Your task to perform on an android device: check battery use Image 0: 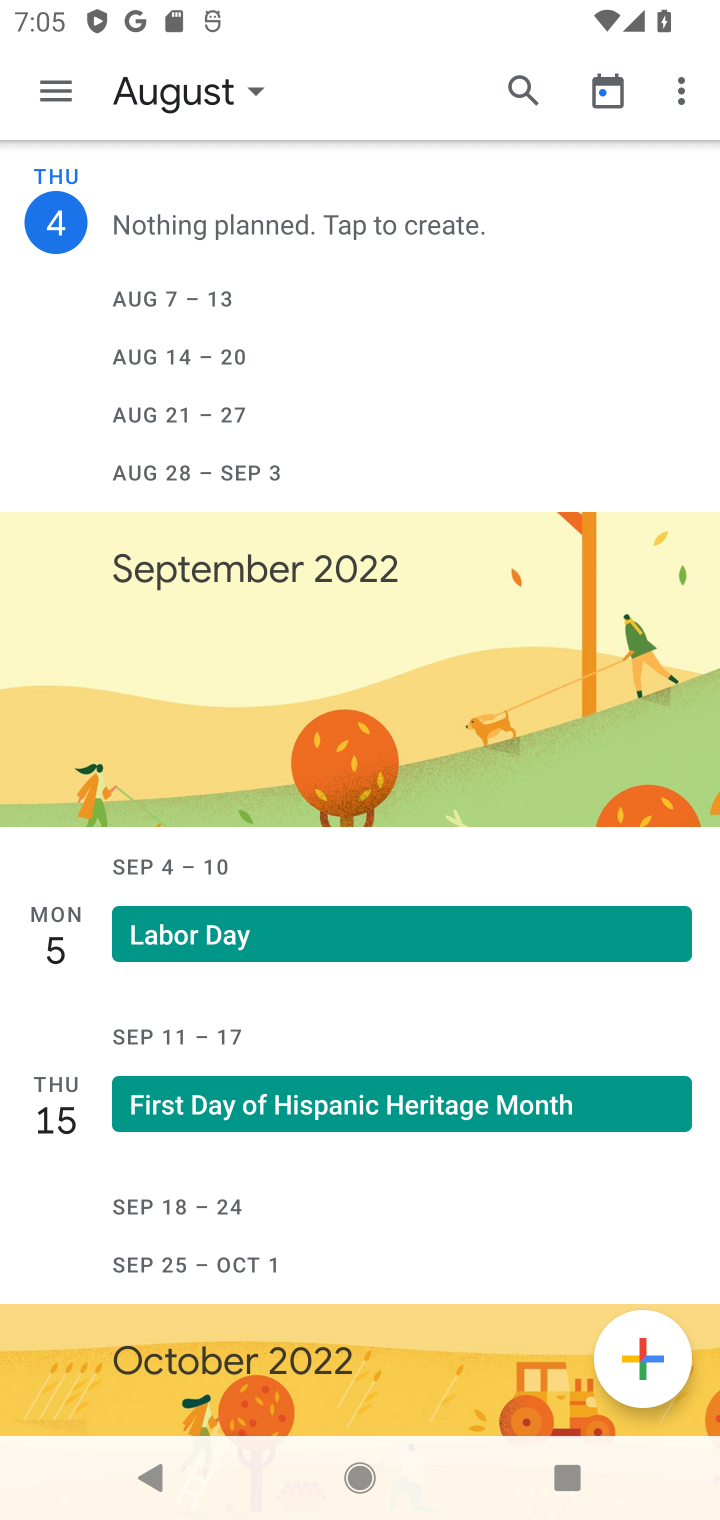
Step 0: press home button
Your task to perform on an android device: check battery use Image 1: 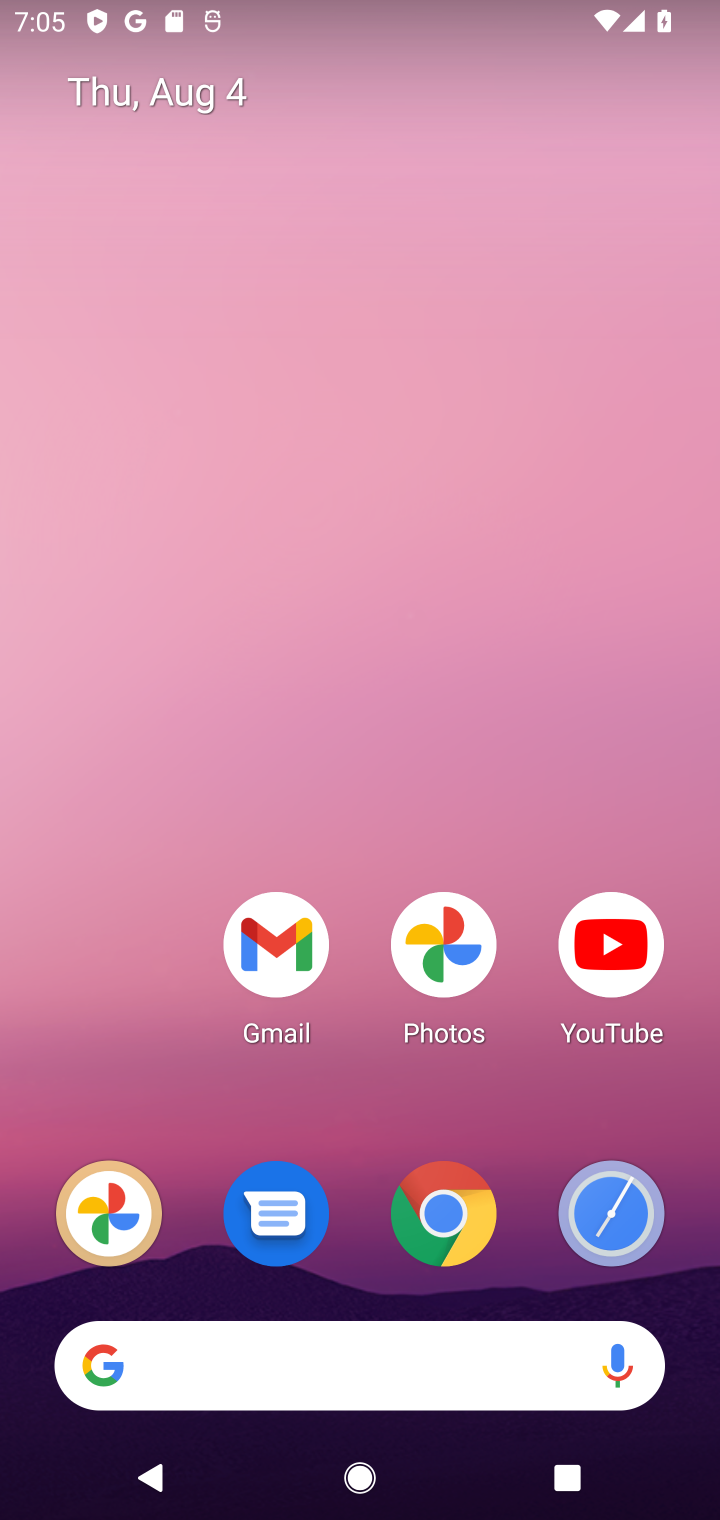
Step 1: click (256, 2)
Your task to perform on an android device: check battery use Image 2: 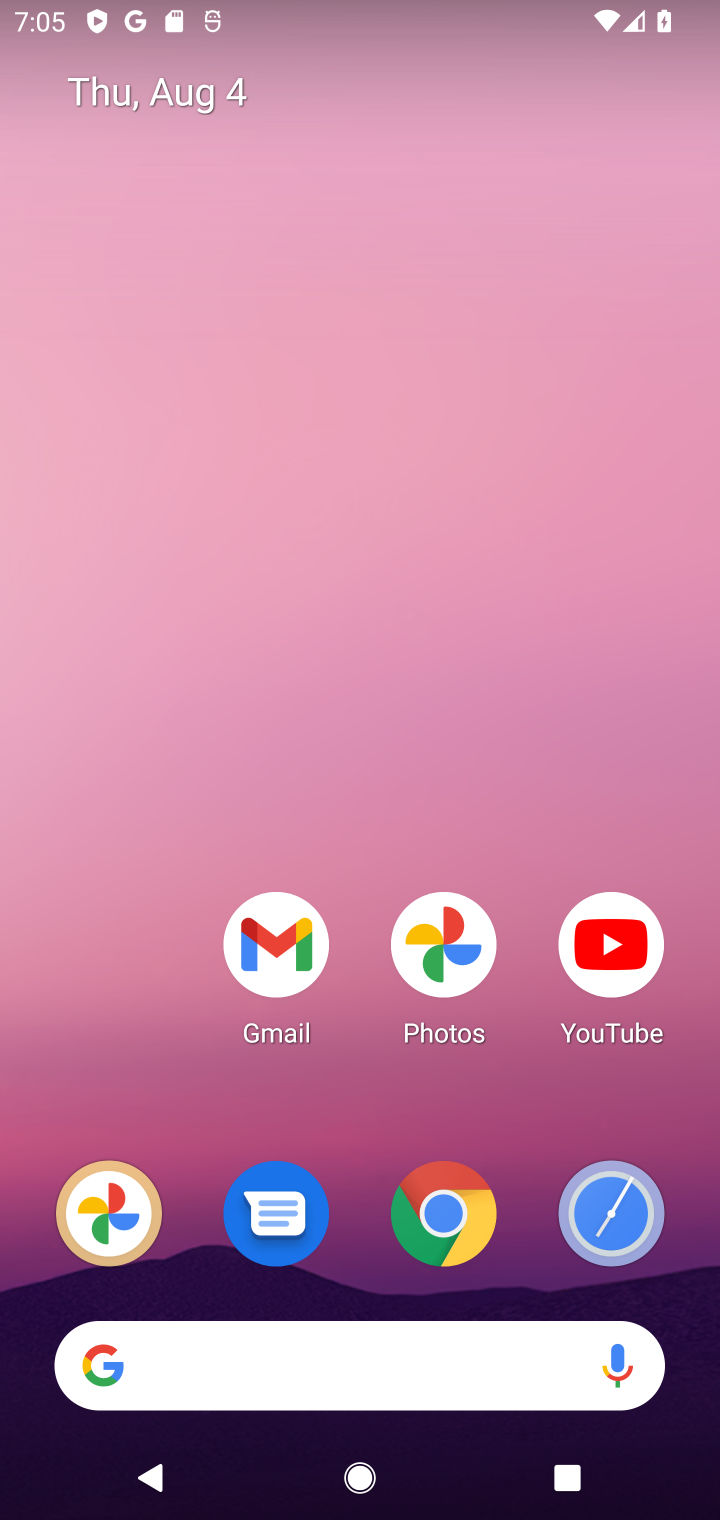
Step 2: drag from (225, 1097) to (183, 439)
Your task to perform on an android device: check battery use Image 3: 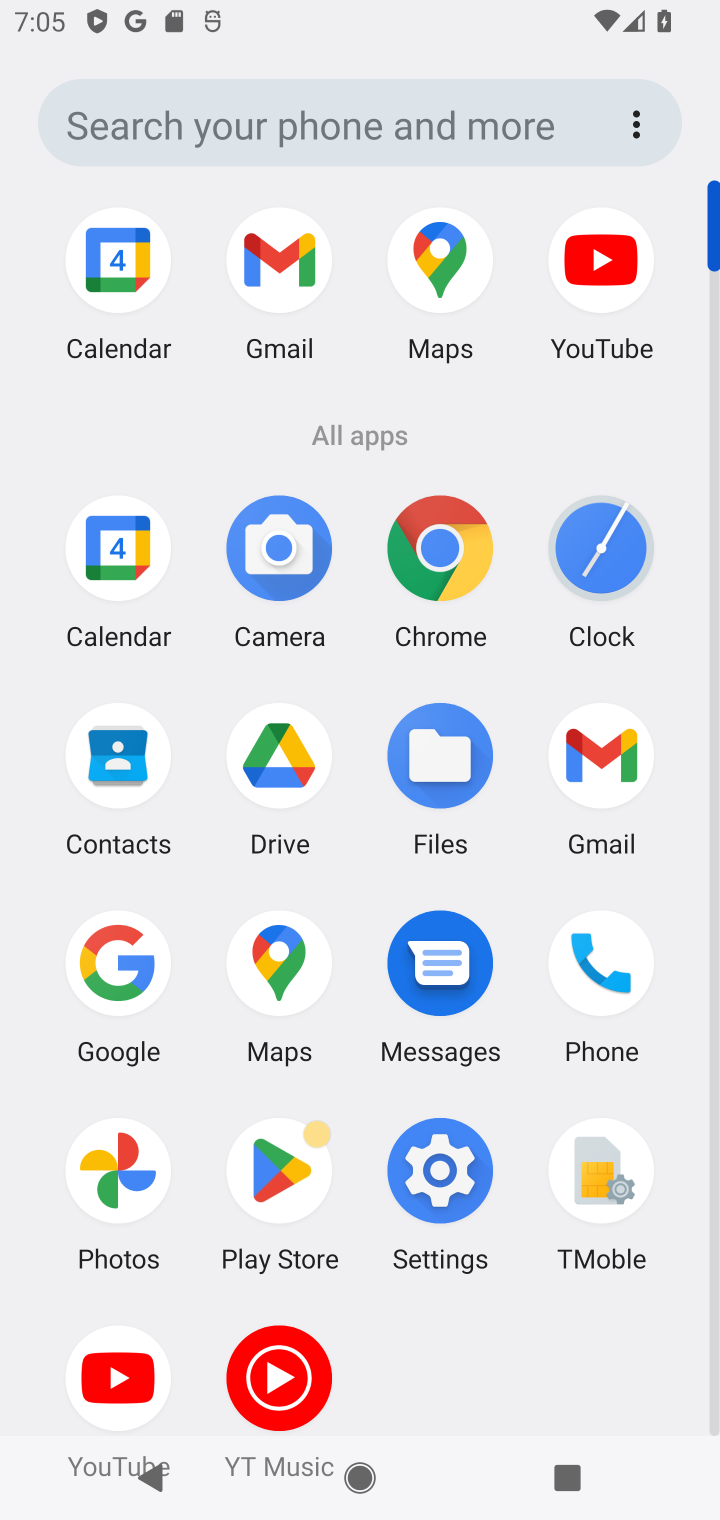
Step 3: click (464, 1151)
Your task to perform on an android device: check battery use Image 4: 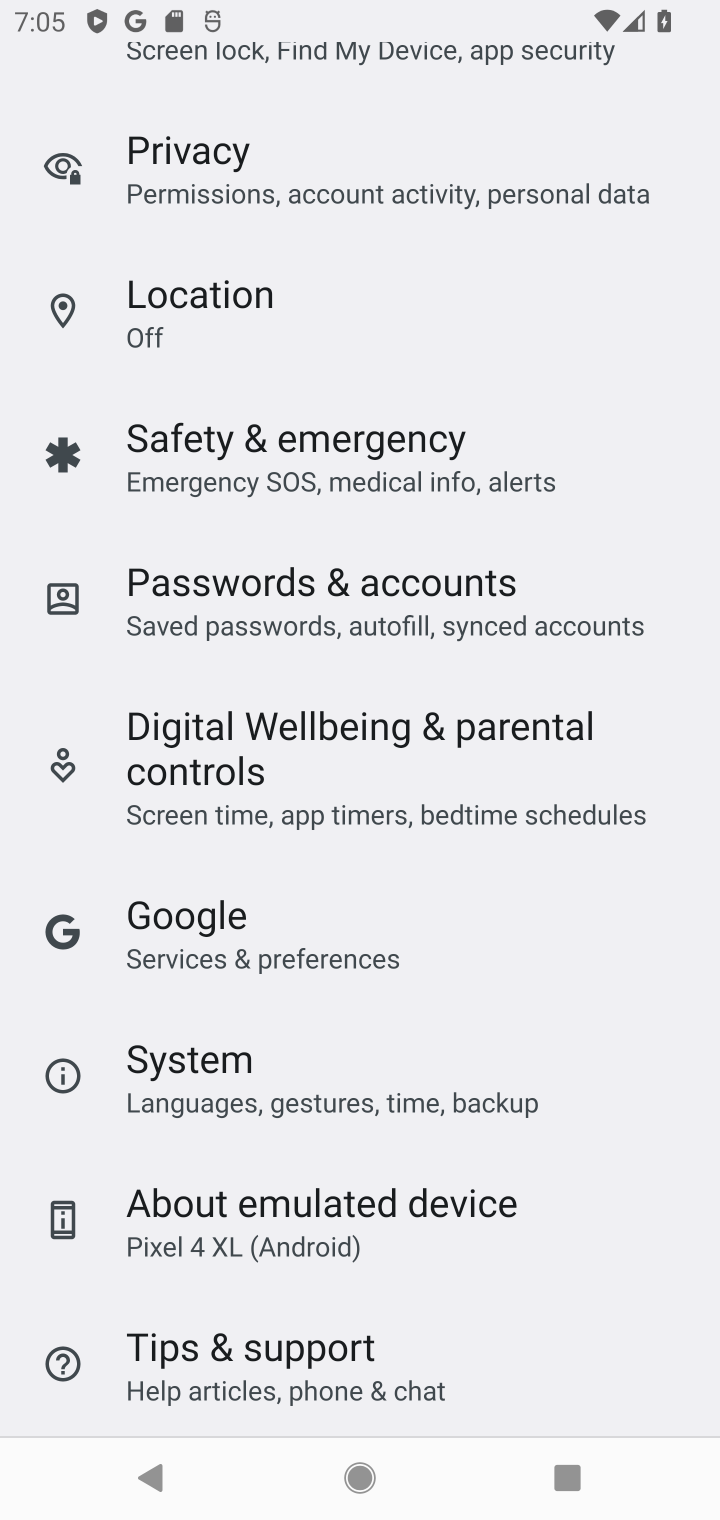
Step 4: drag from (450, 457) to (507, 1390)
Your task to perform on an android device: check battery use Image 5: 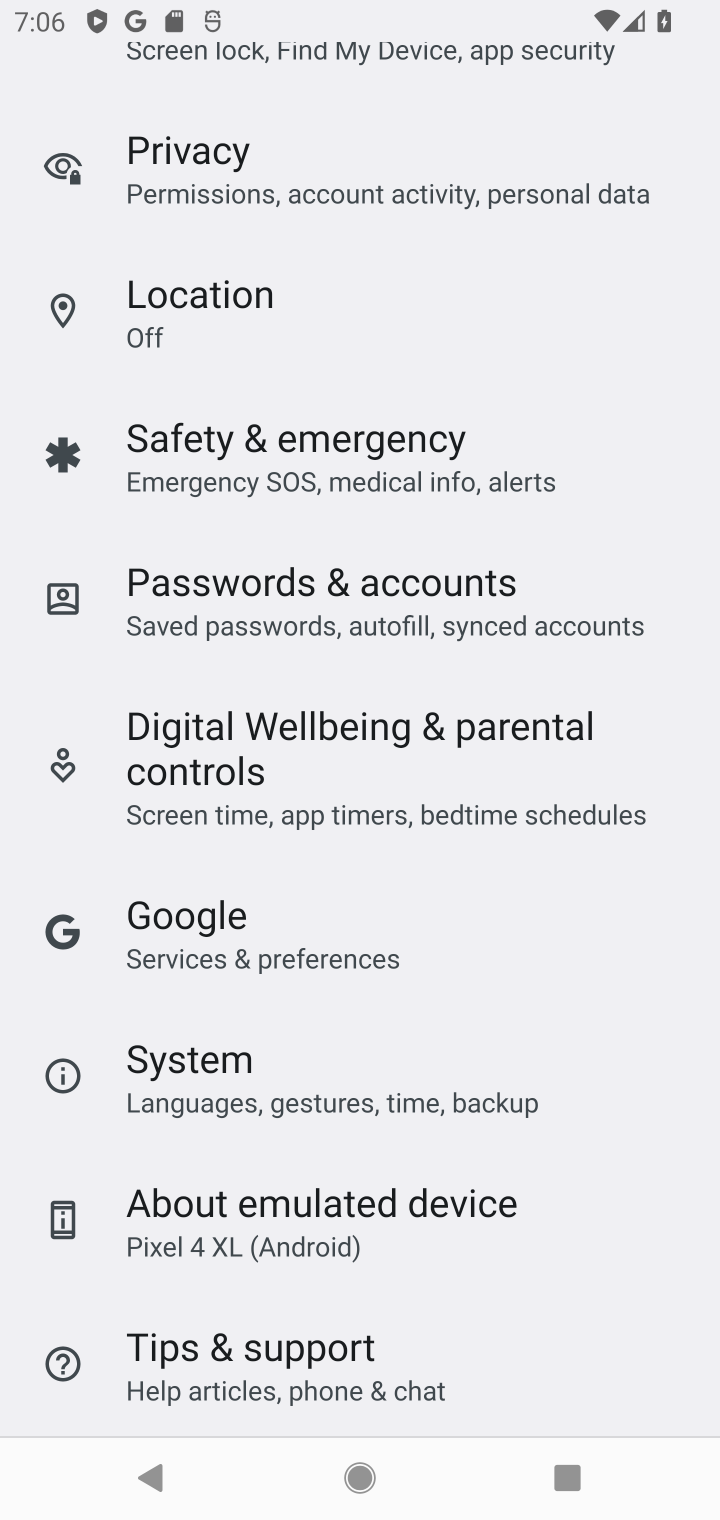
Step 5: drag from (374, 820) to (402, 1117)
Your task to perform on an android device: check battery use Image 6: 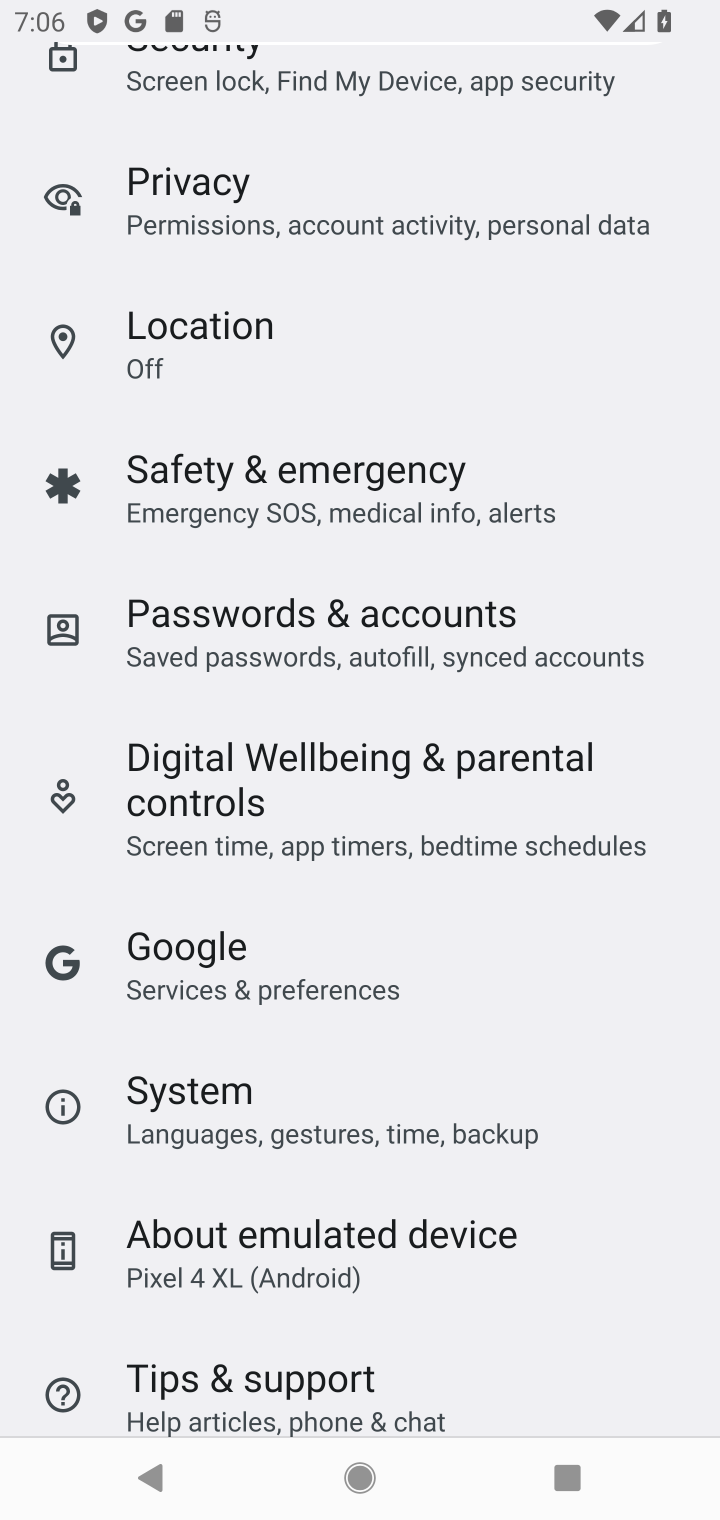
Step 6: drag from (361, 189) to (468, 909)
Your task to perform on an android device: check battery use Image 7: 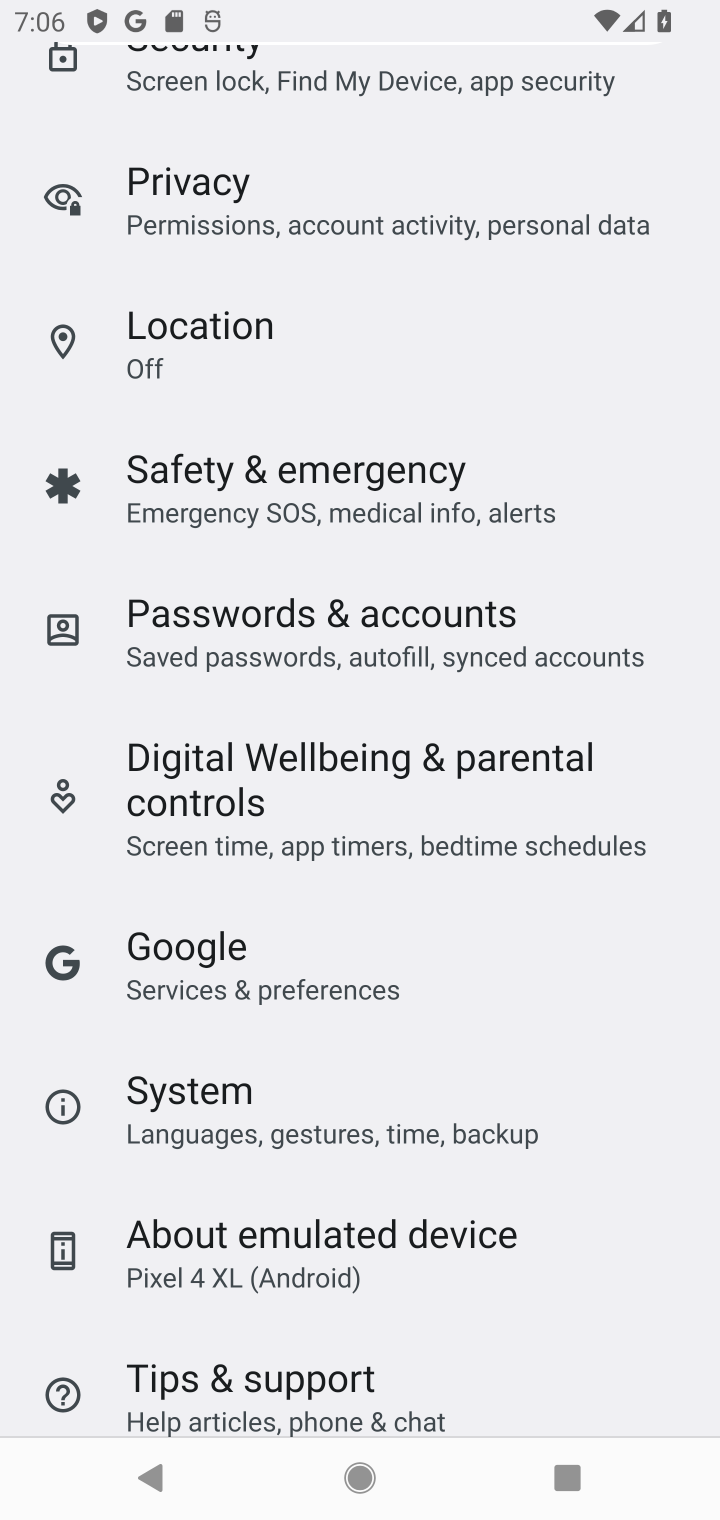
Step 7: drag from (592, 289) to (650, 888)
Your task to perform on an android device: check battery use Image 8: 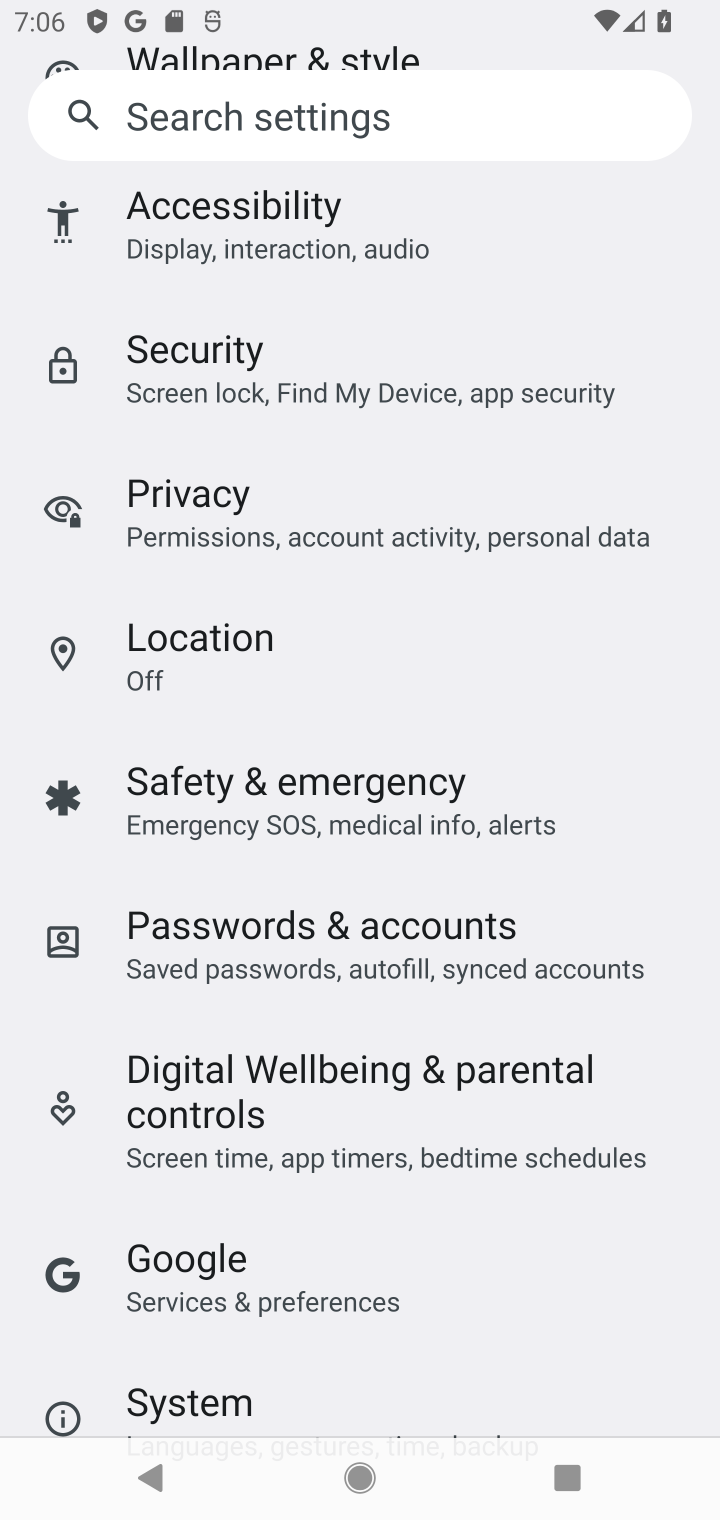
Step 8: drag from (301, 386) to (413, 1224)
Your task to perform on an android device: check battery use Image 9: 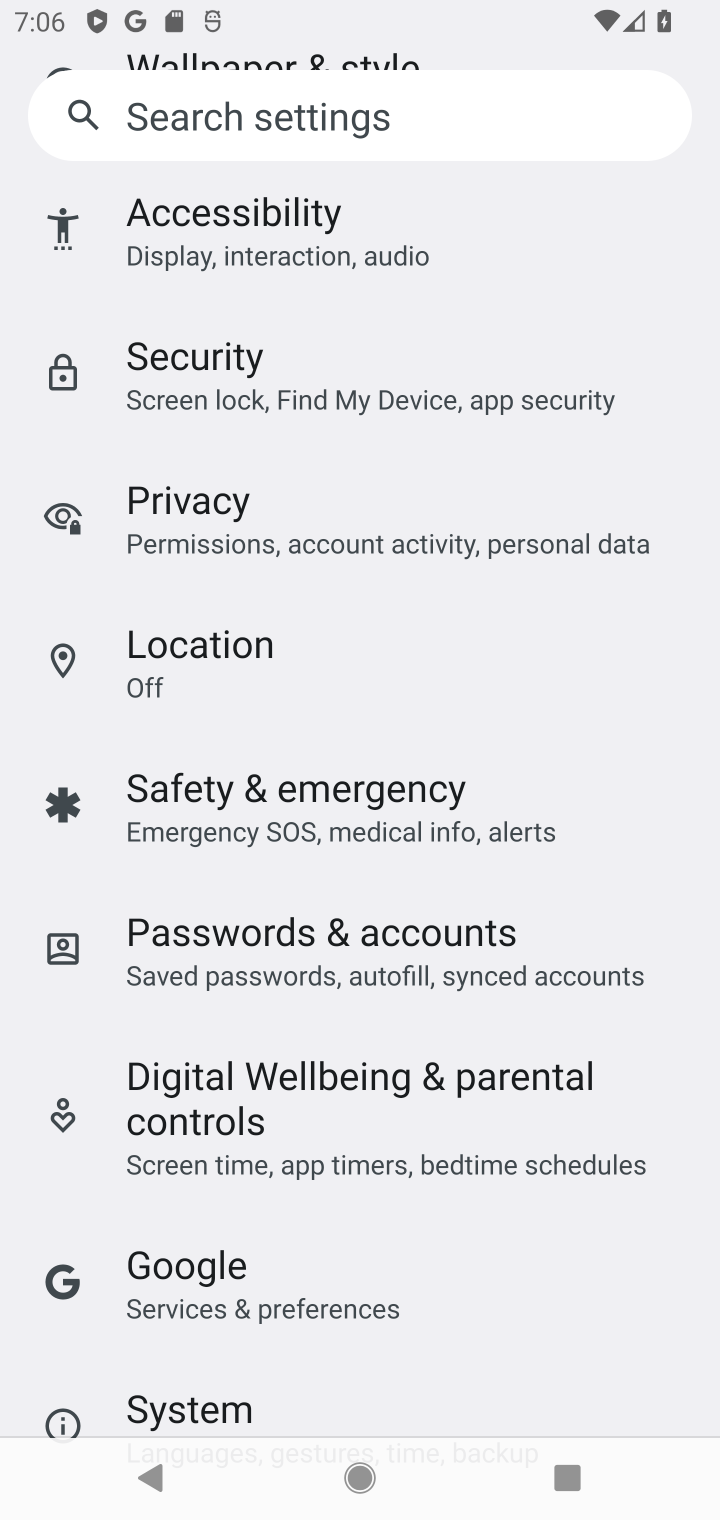
Step 9: drag from (469, 377) to (406, 1472)
Your task to perform on an android device: check battery use Image 10: 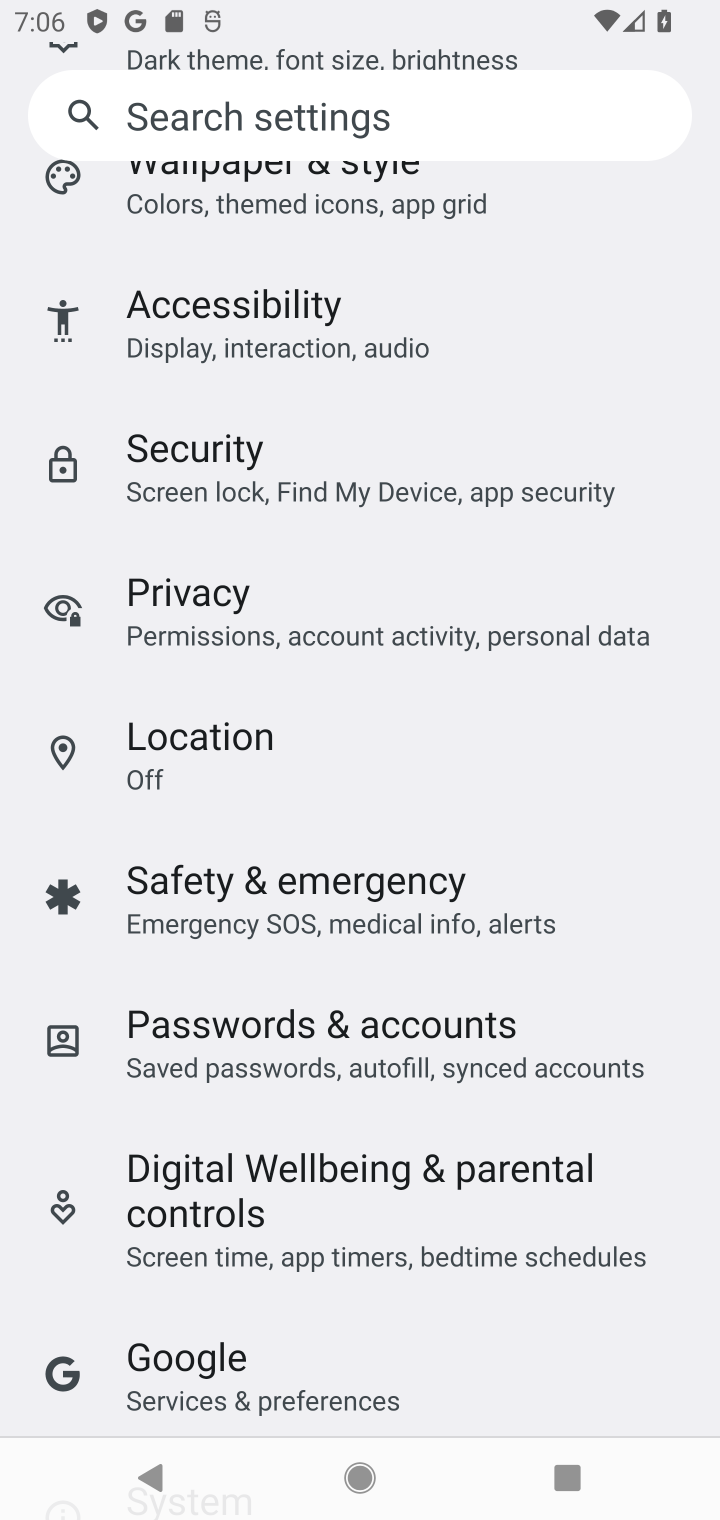
Step 10: drag from (580, 318) to (610, 1165)
Your task to perform on an android device: check battery use Image 11: 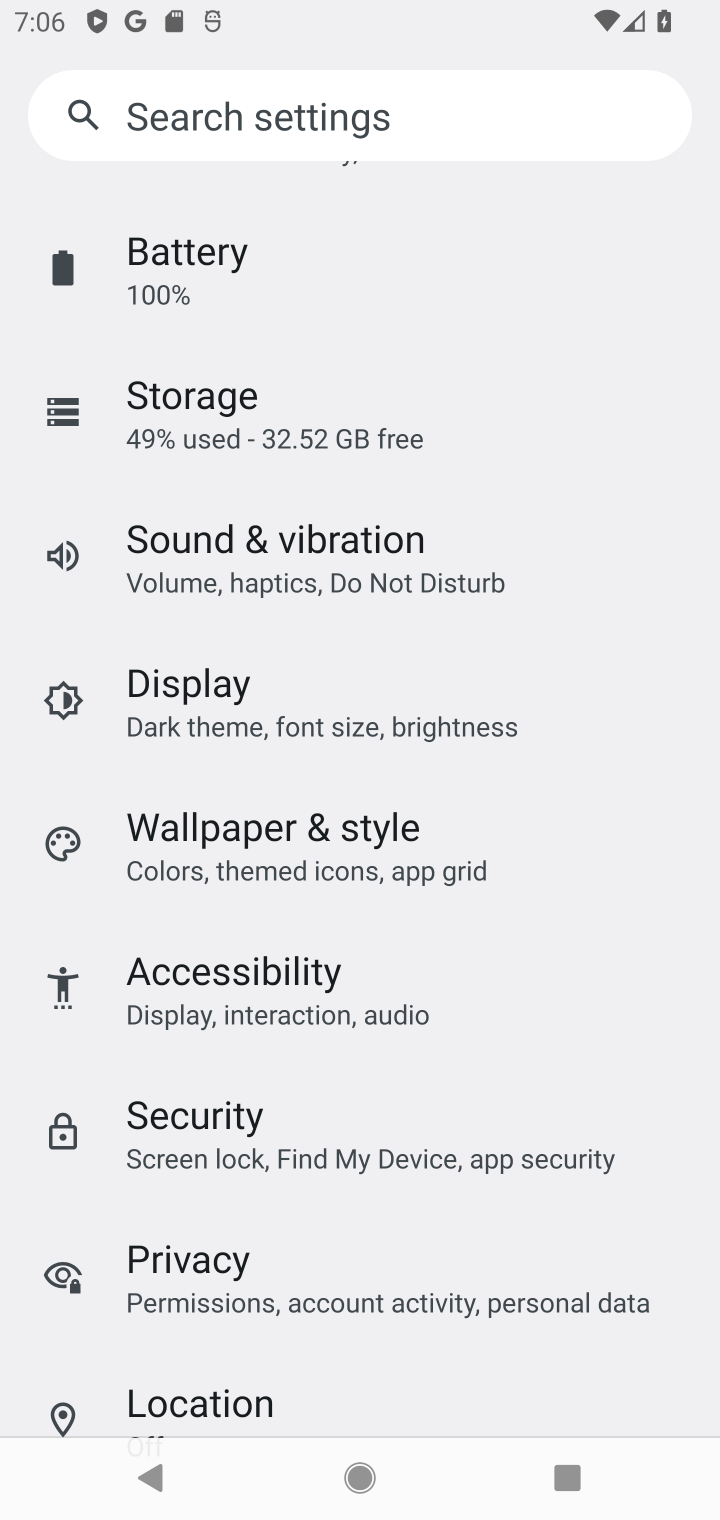
Step 11: click (291, 243)
Your task to perform on an android device: check battery use Image 12: 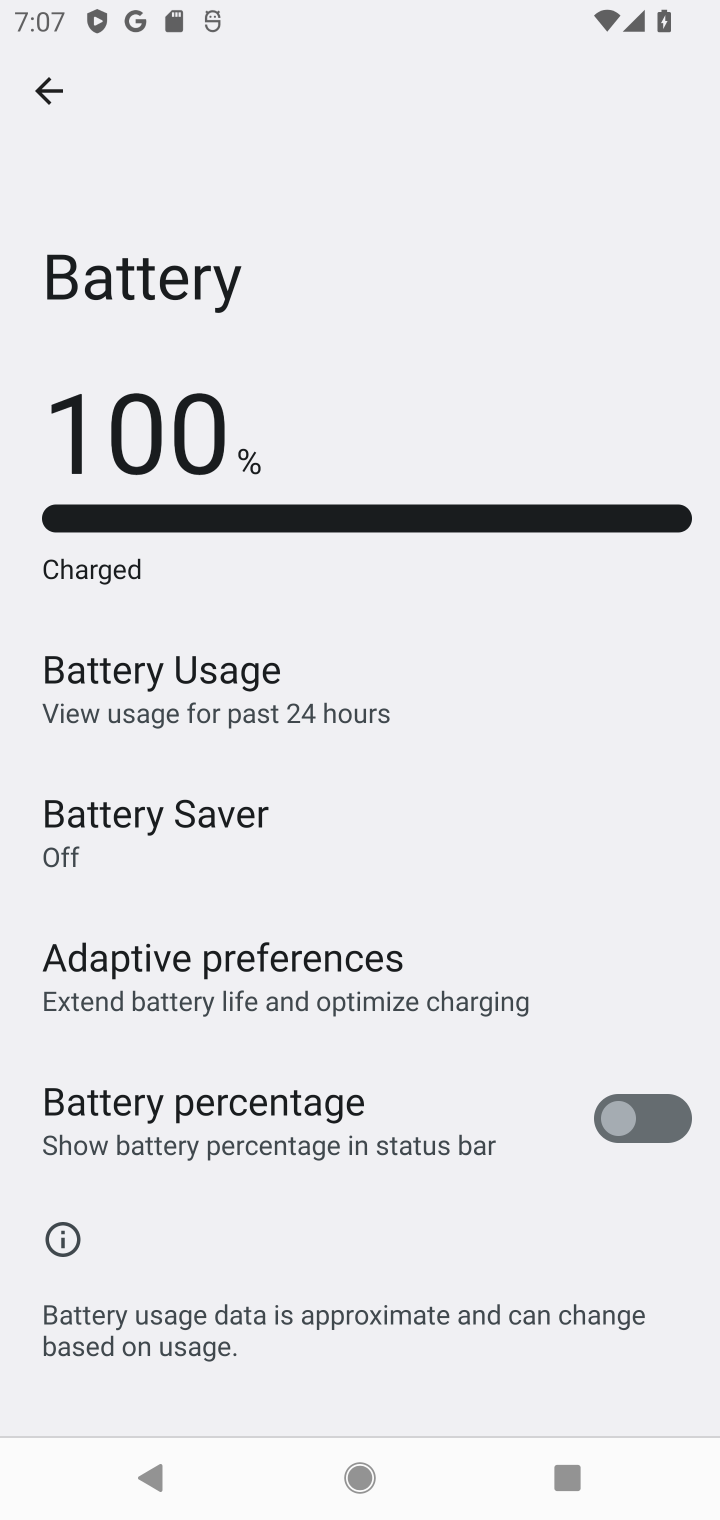
Step 12: click (220, 672)
Your task to perform on an android device: check battery use Image 13: 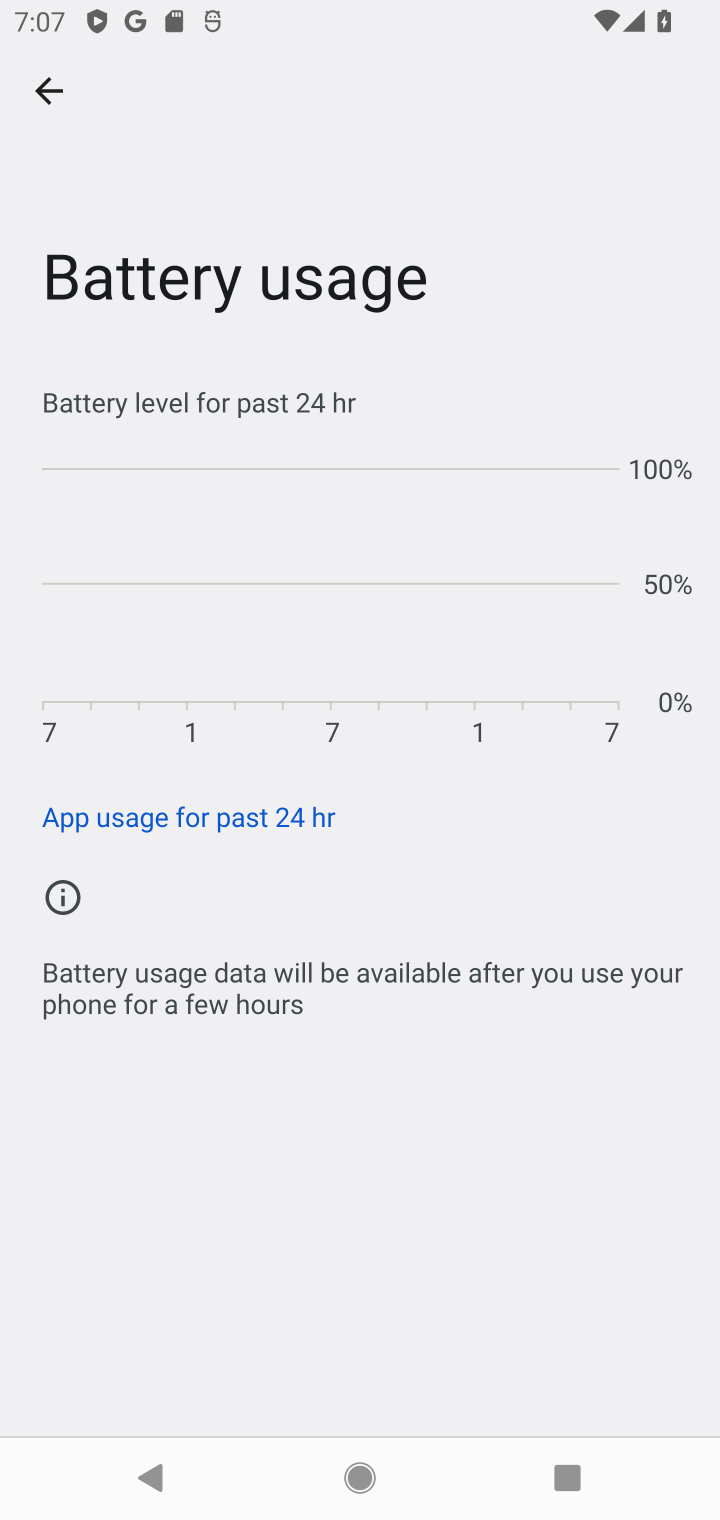
Step 13: task complete